Your task to perform on an android device: clear history in the chrome app Image 0: 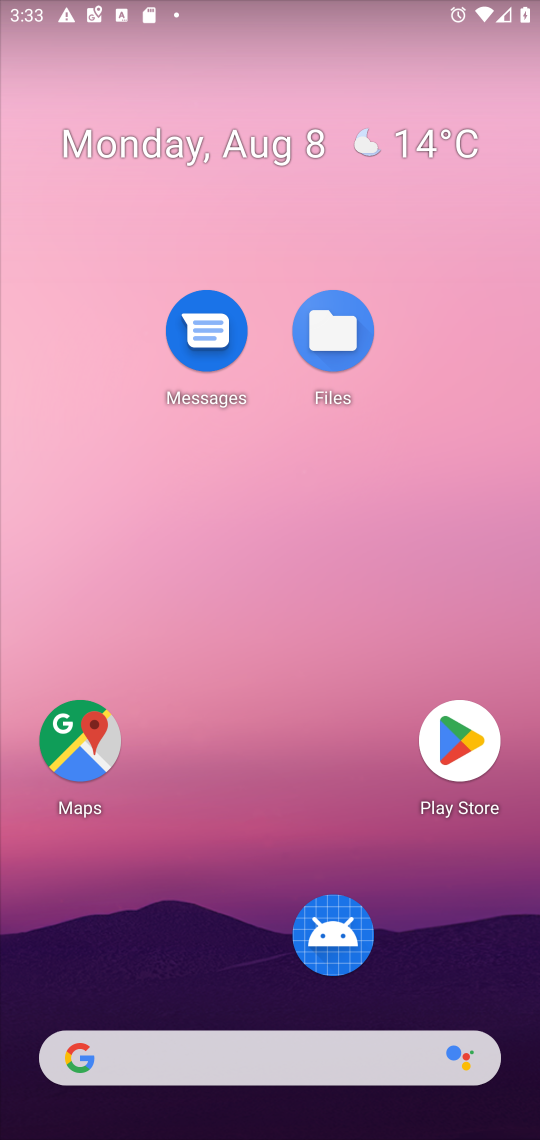
Step 0: drag from (359, 1055) to (356, 522)
Your task to perform on an android device: clear history in the chrome app Image 1: 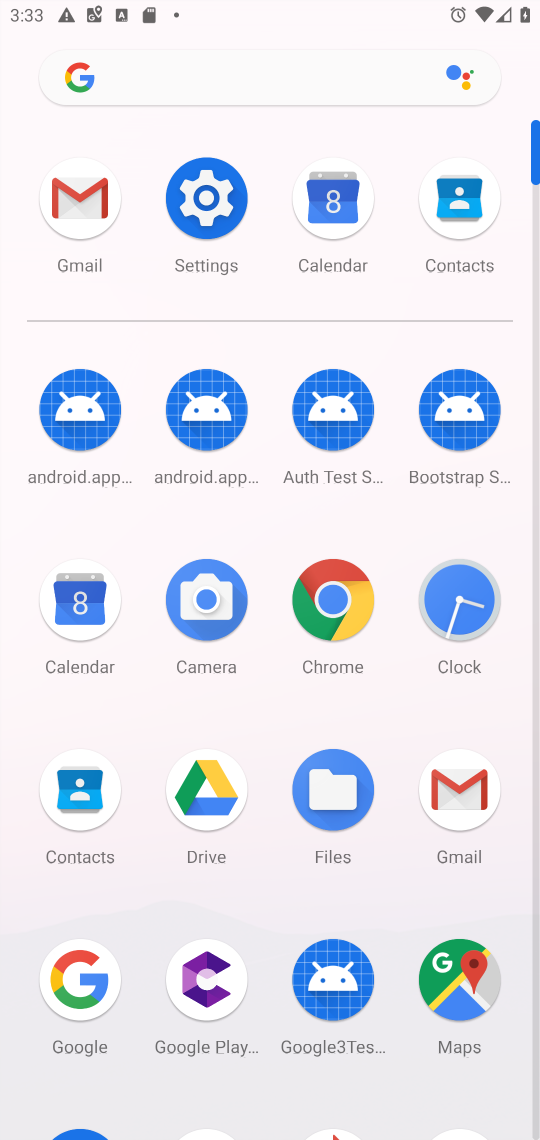
Step 1: click (335, 621)
Your task to perform on an android device: clear history in the chrome app Image 2: 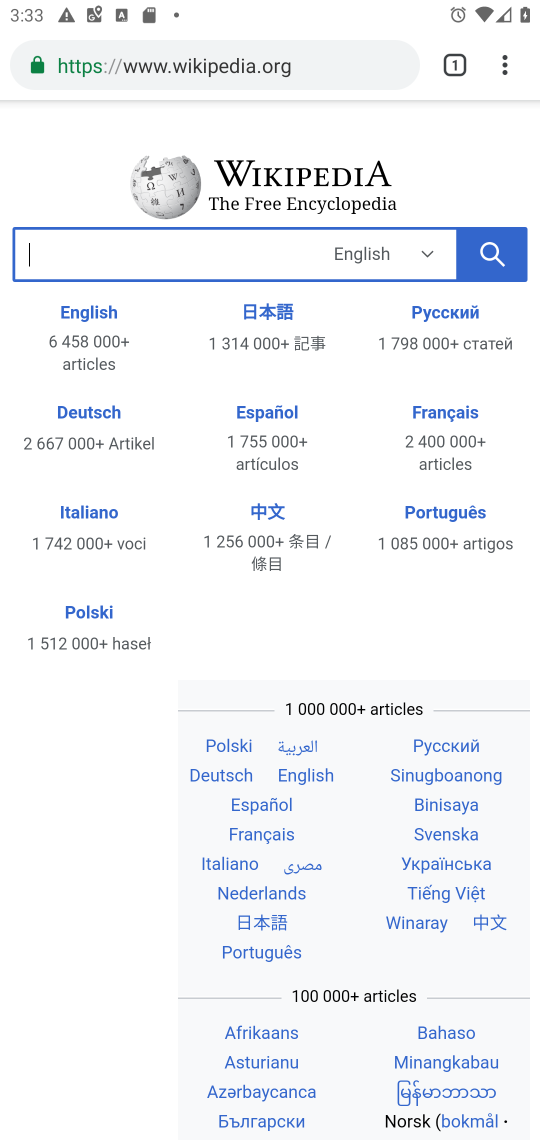
Step 2: click (499, 72)
Your task to perform on an android device: clear history in the chrome app Image 3: 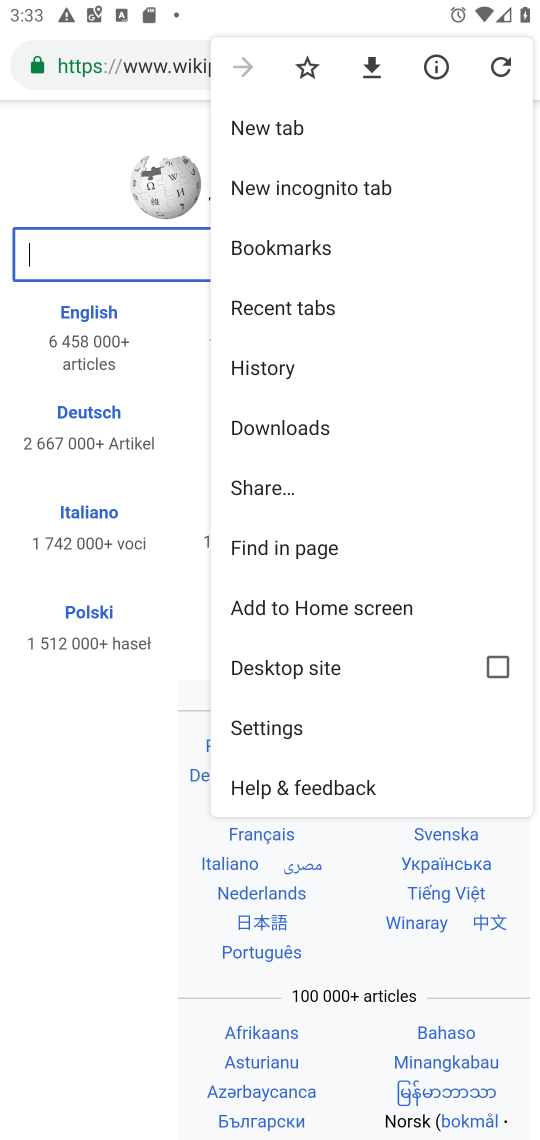
Step 3: click (323, 722)
Your task to perform on an android device: clear history in the chrome app Image 4: 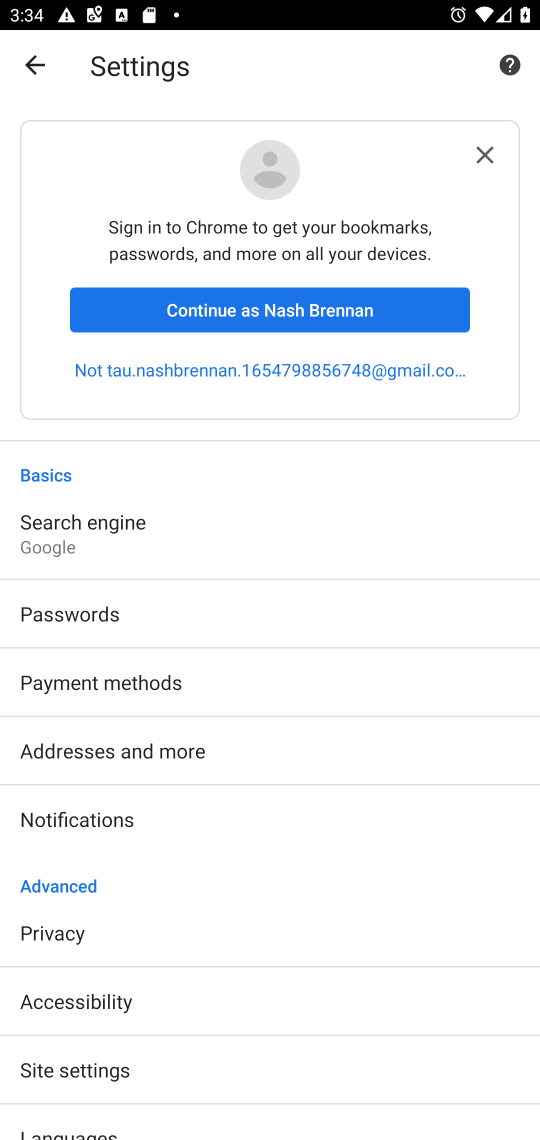
Step 4: press back button
Your task to perform on an android device: clear history in the chrome app Image 5: 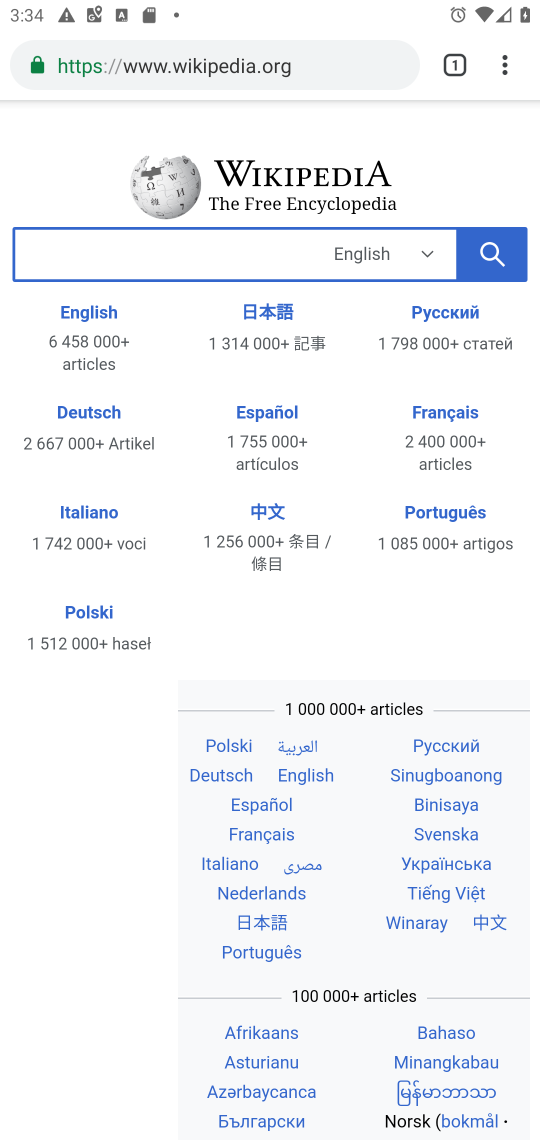
Step 5: click (504, 44)
Your task to perform on an android device: clear history in the chrome app Image 6: 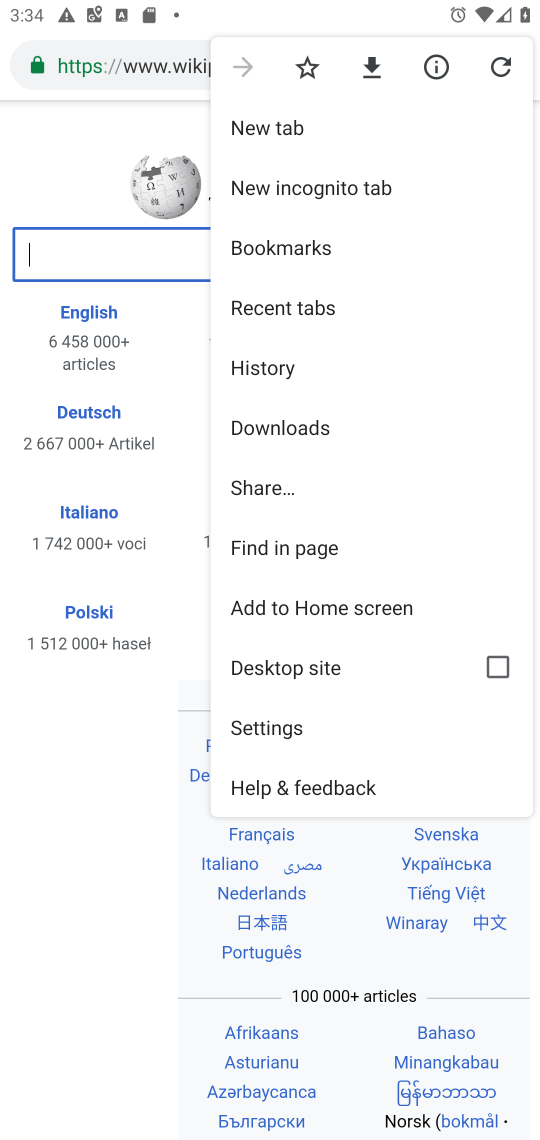
Step 6: click (285, 357)
Your task to perform on an android device: clear history in the chrome app Image 7: 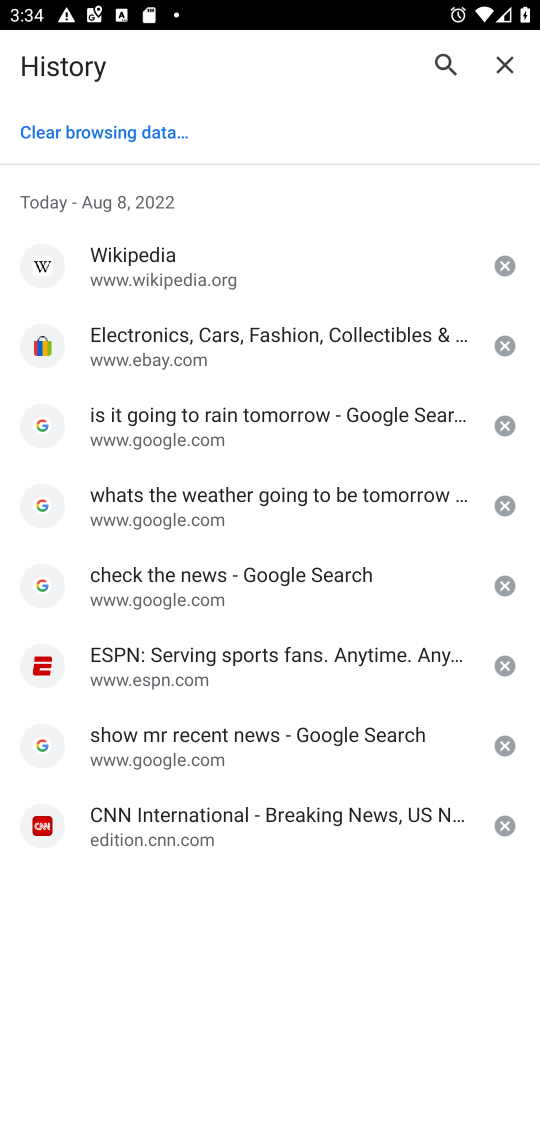
Step 7: click (89, 134)
Your task to perform on an android device: clear history in the chrome app Image 8: 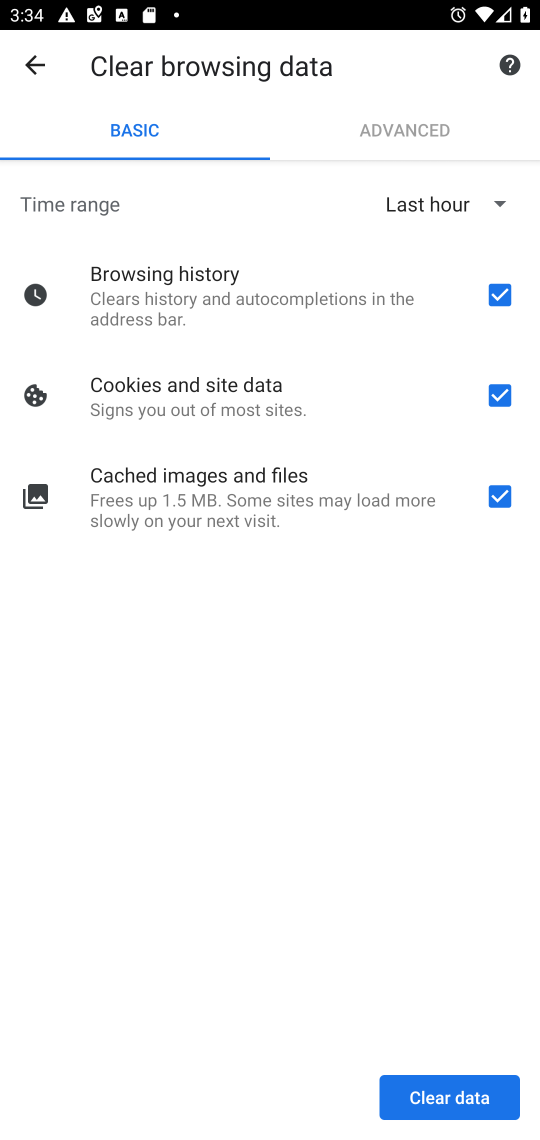
Step 8: click (465, 1103)
Your task to perform on an android device: clear history in the chrome app Image 9: 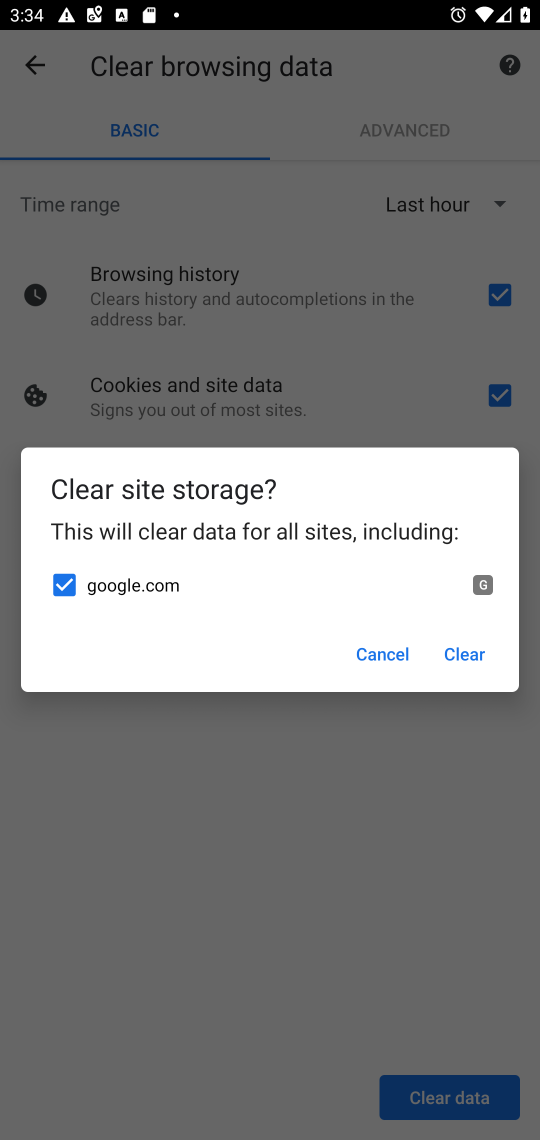
Step 9: click (482, 653)
Your task to perform on an android device: clear history in the chrome app Image 10: 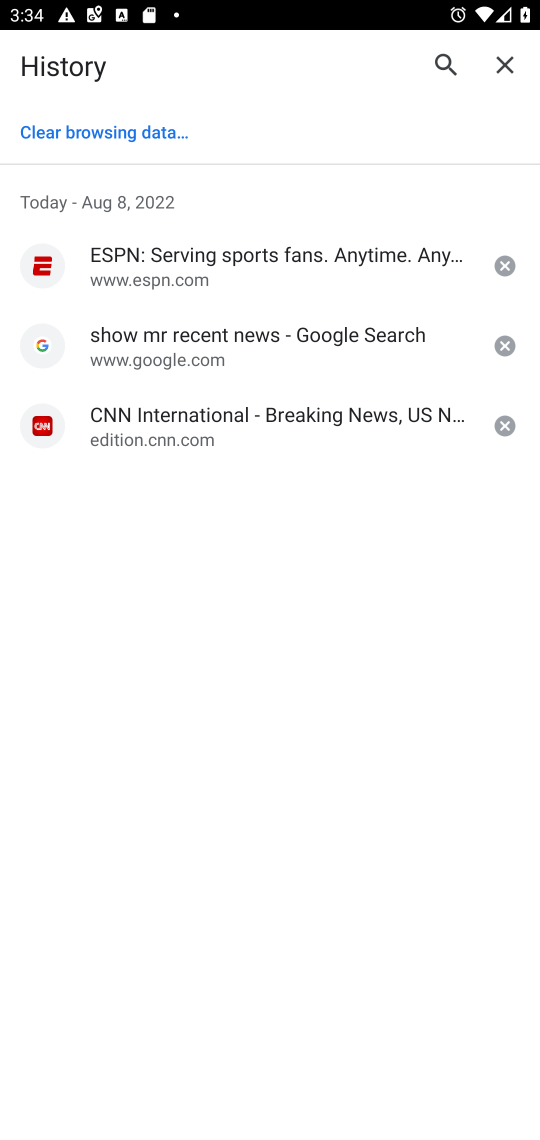
Step 10: click (498, 264)
Your task to perform on an android device: clear history in the chrome app Image 11: 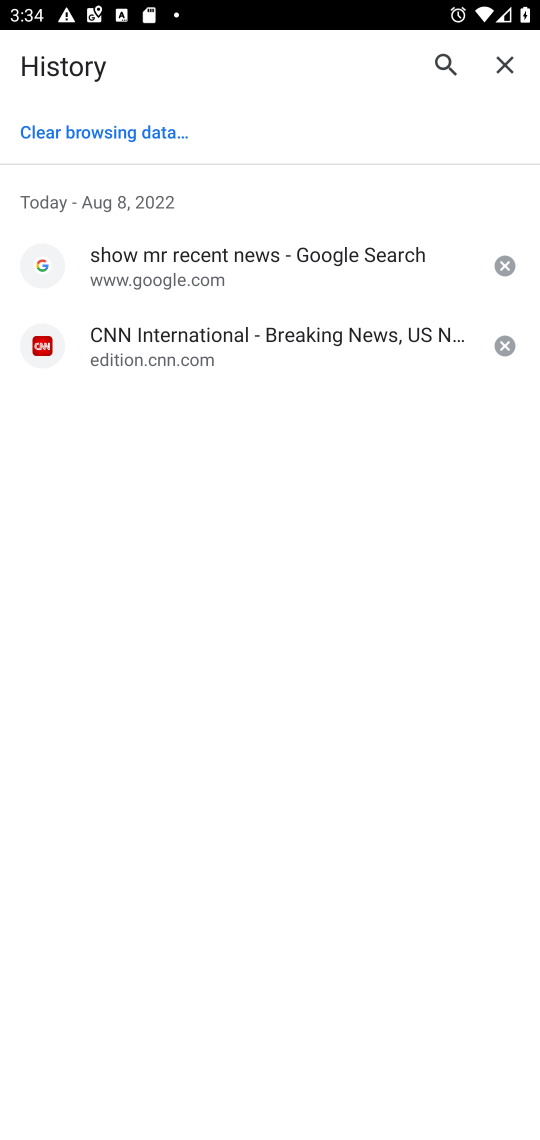
Step 11: click (509, 264)
Your task to perform on an android device: clear history in the chrome app Image 12: 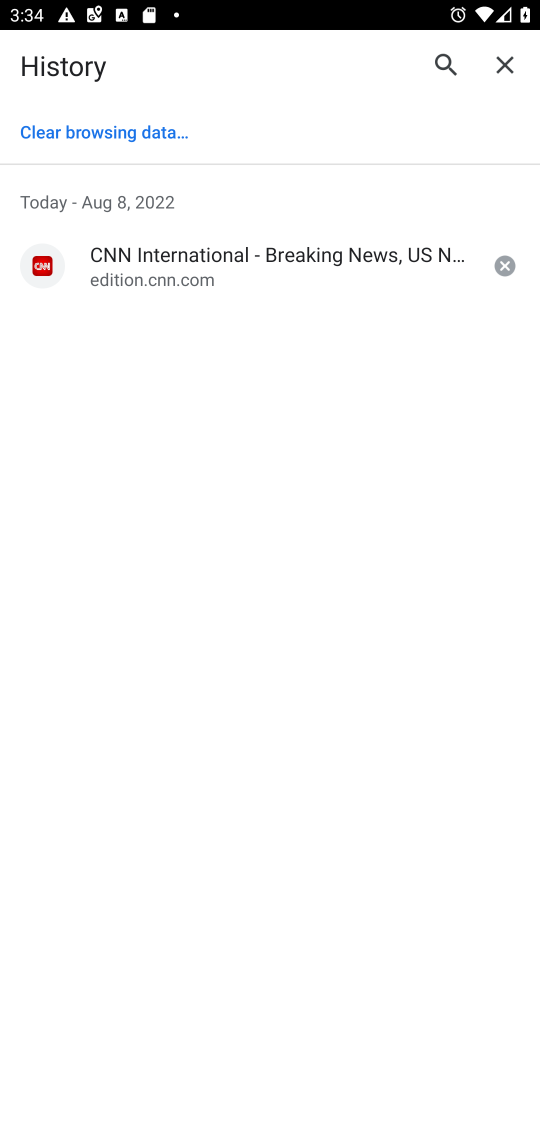
Step 12: click (504, 259)
Your task to perform on an android device: clear history in the chrome app Image 13: 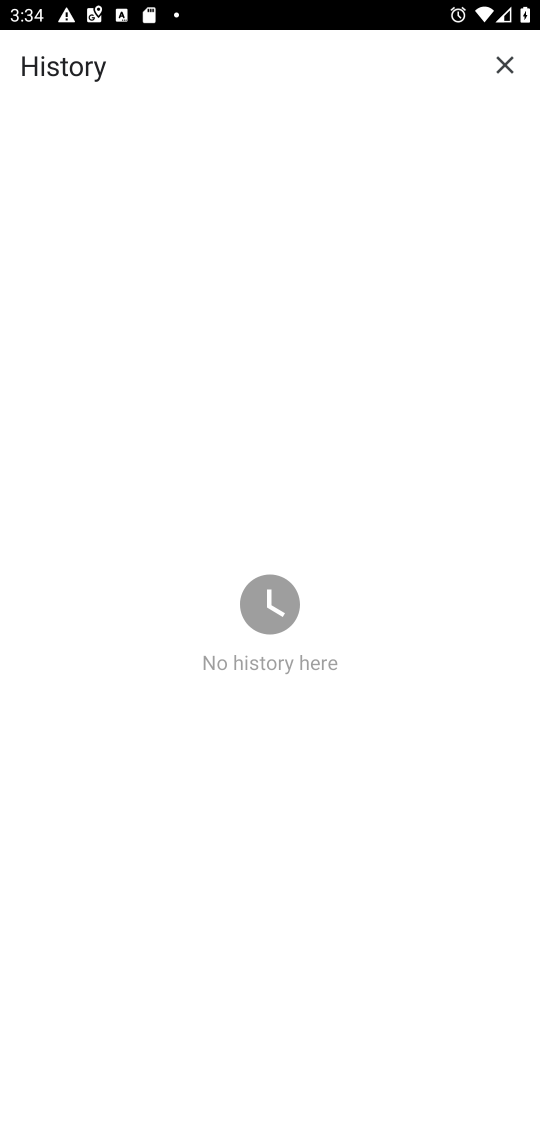
Step 13: task complete